Your task to perform on an android device: change alarm snooze length Image 0: 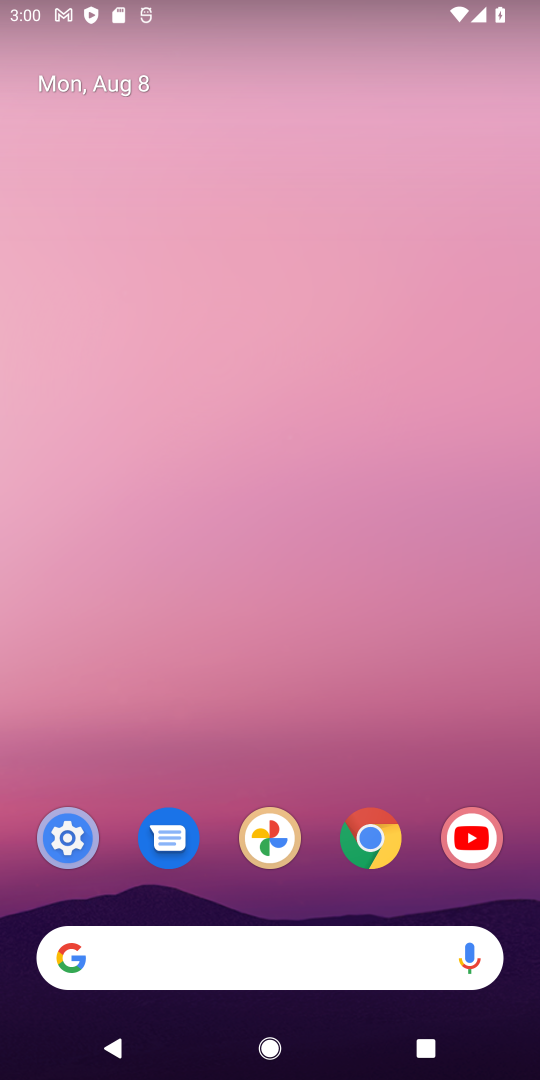
Step 0: drag from (208, 968) to (249, 330)
Your task to perform on an android device: change alarm snooze length Image 1: 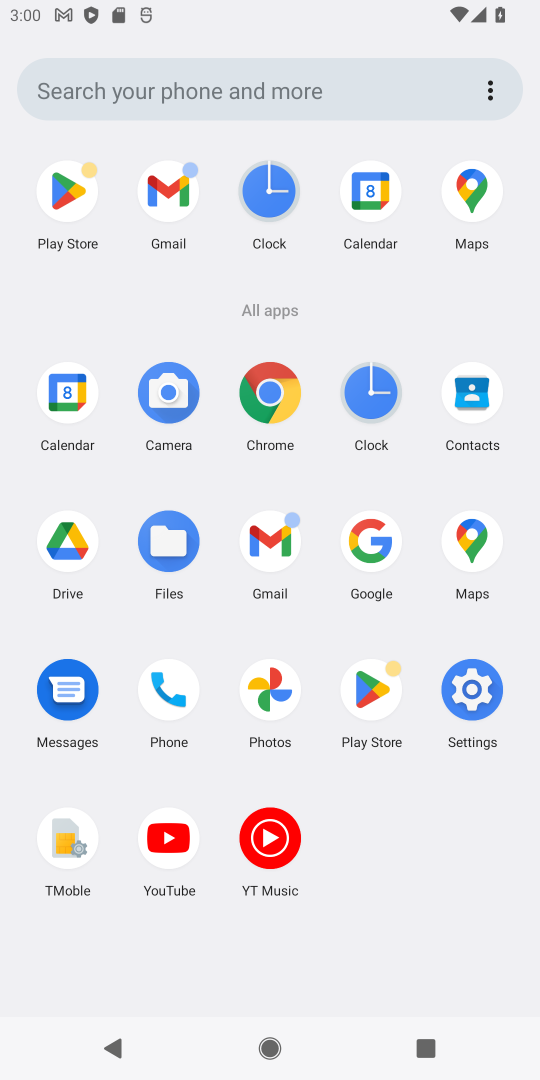
Step 1: click (268, 195)
Your task to perform on an android device: change alarm snooze length Image 2: 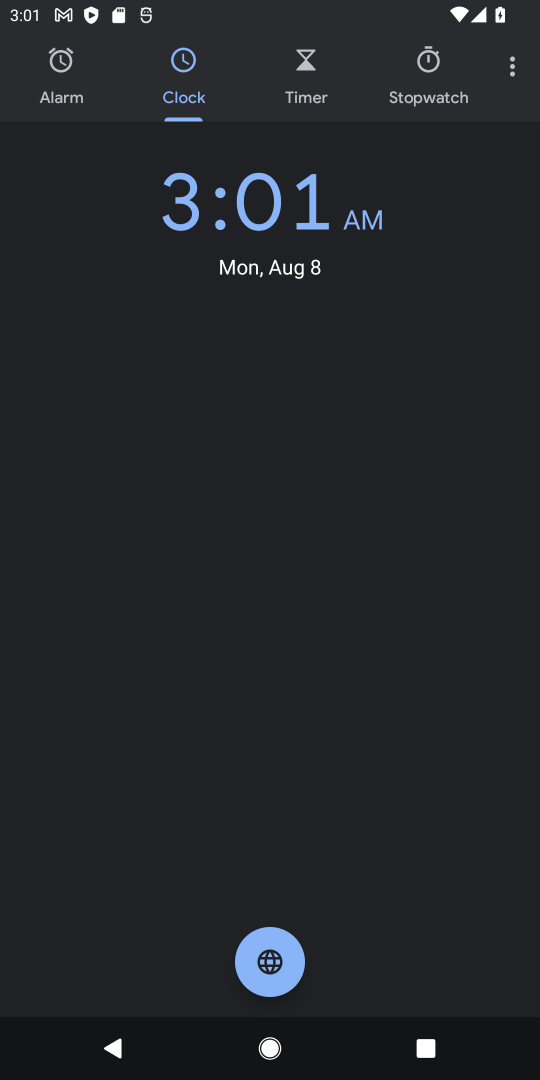
Step 2: click (513, 71)
Your task to perform on an android device: change alarm snooze length Image 3: 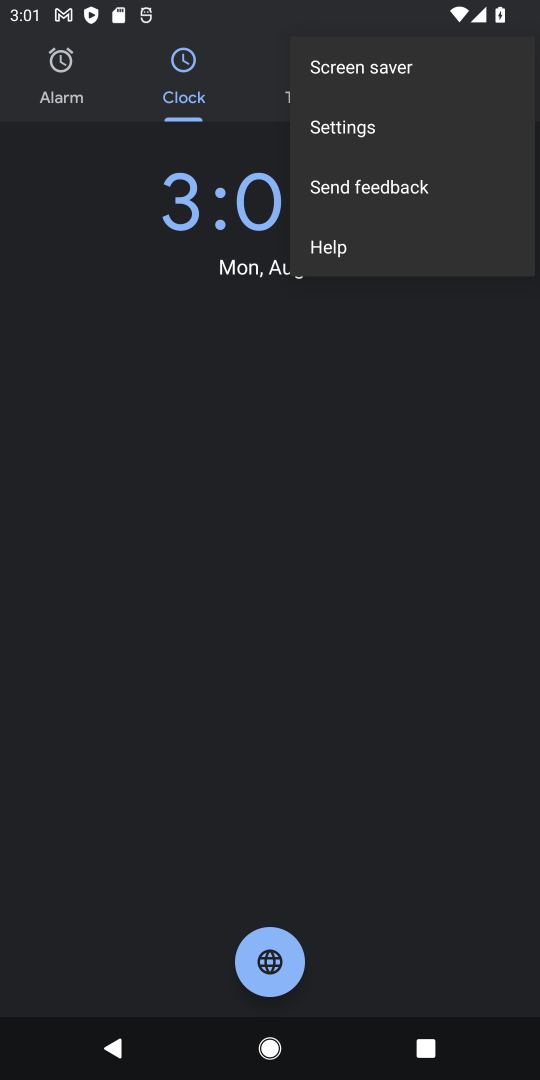
Step 3: click (366, 131)
Your task to perform on an android device: change alarm snooze length Image 4: 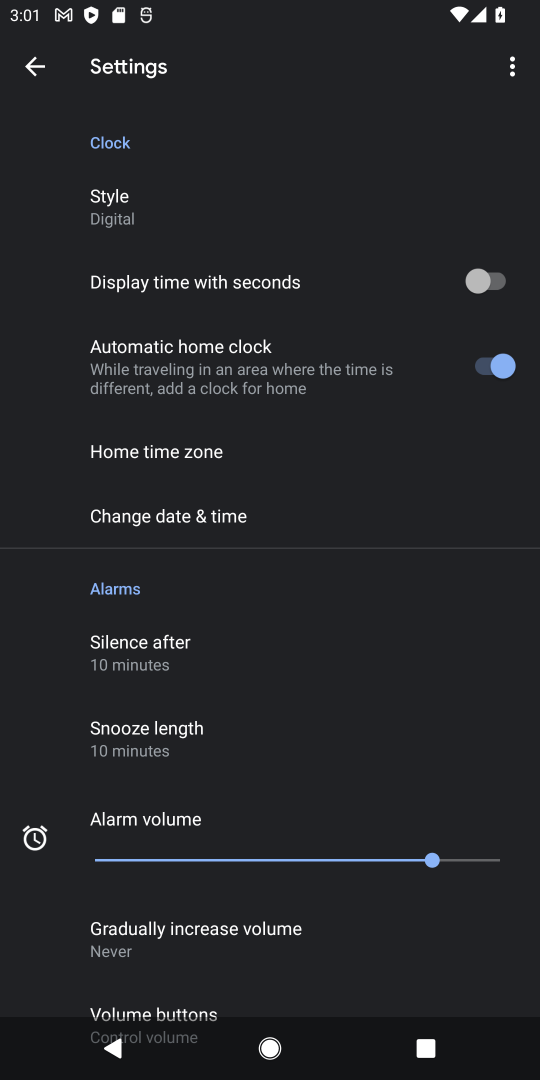
Step 4: click (165, 738)
Your task to perform on an android device: change alarm snooze length Image 5: 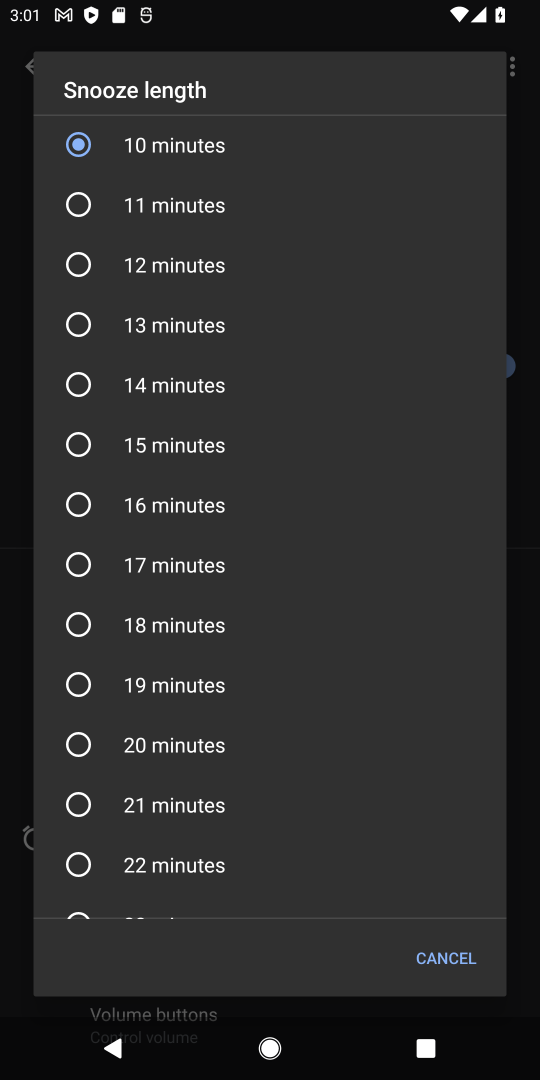
Step 5: drag from (178, 825) to (219, 644)
Your task to perform on an android device: change alarm snooze length Image 6: 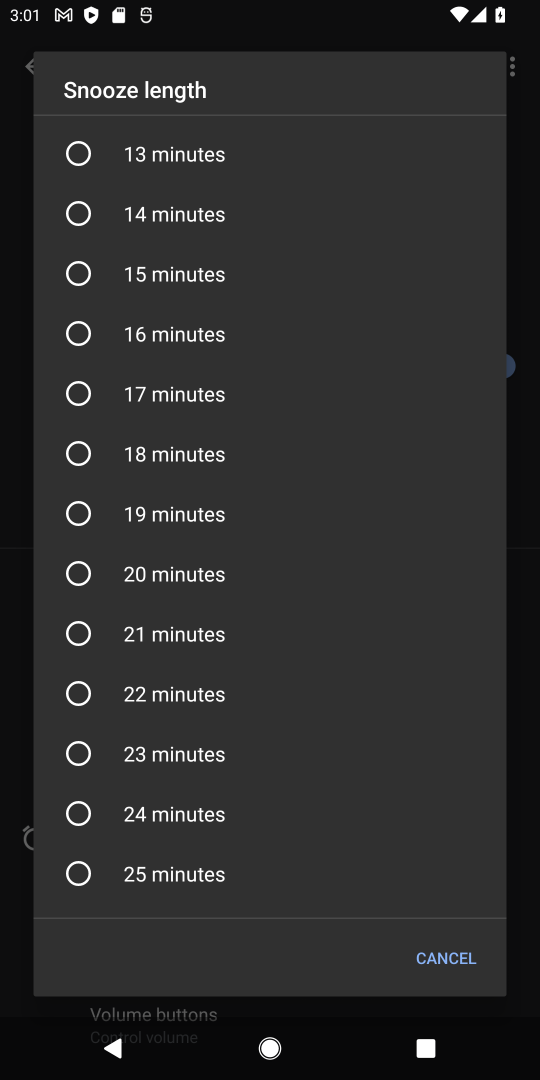
Step 6: click (88, 629)
Your task to perform on an android device: change alarm snooze length Image 7: 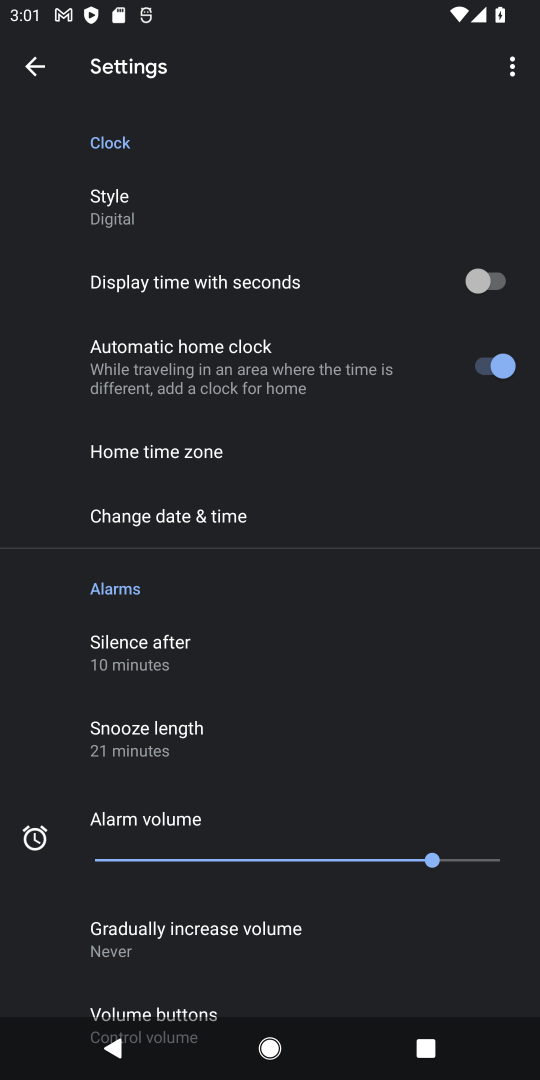
Step 7: task complete